Your task to perform on an android device: add a contact Image 0: 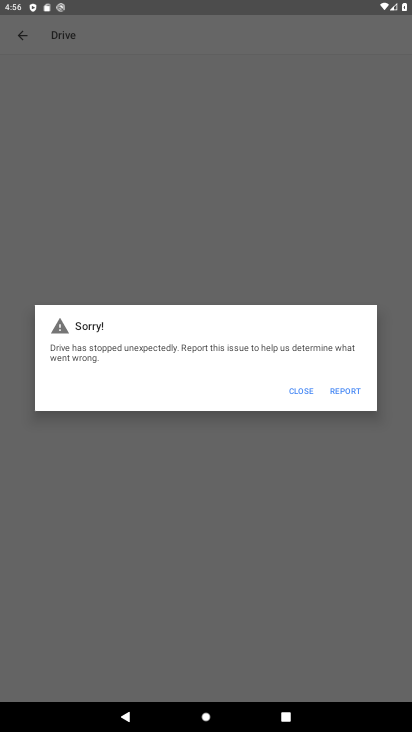
Step 0: press home button
Your task to perform on an android device: add a contact Image 1: 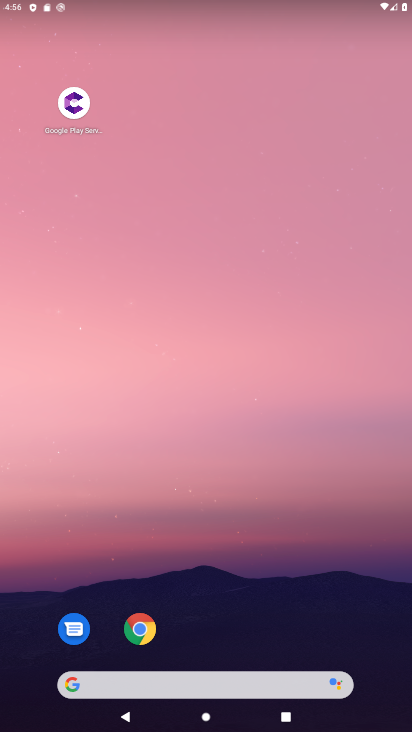
Step 1: click (302, 264)
Your task to perform on an android device: add a contact Image 2: 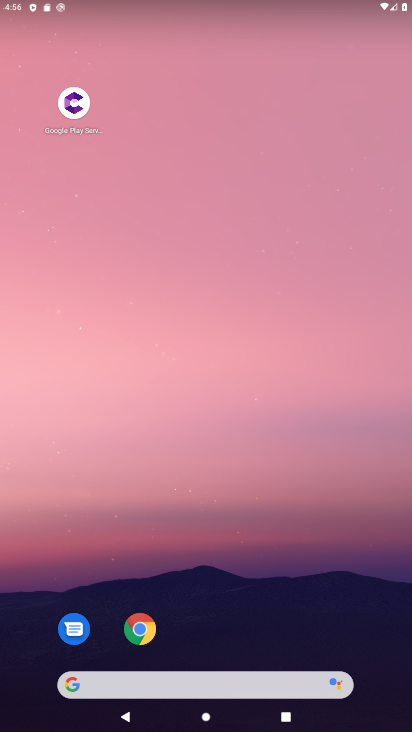
Step 2: drag from (216, 553) to (205, 8)
Your task to perform on an android device: add a contact Image 3: 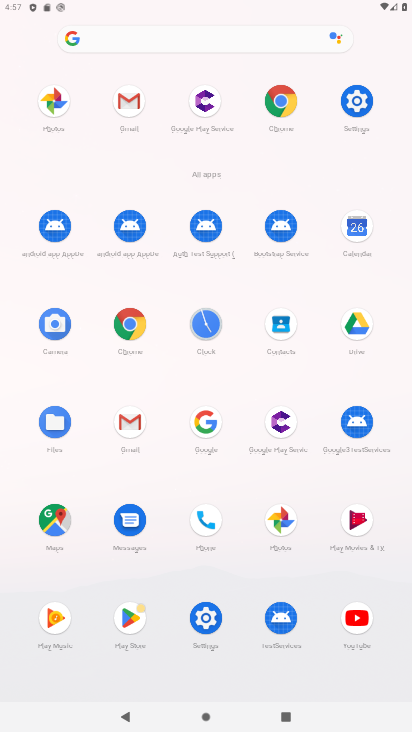
Step 3: click (273, 324)
Your task to perform on an android device: add a contact Image 4: 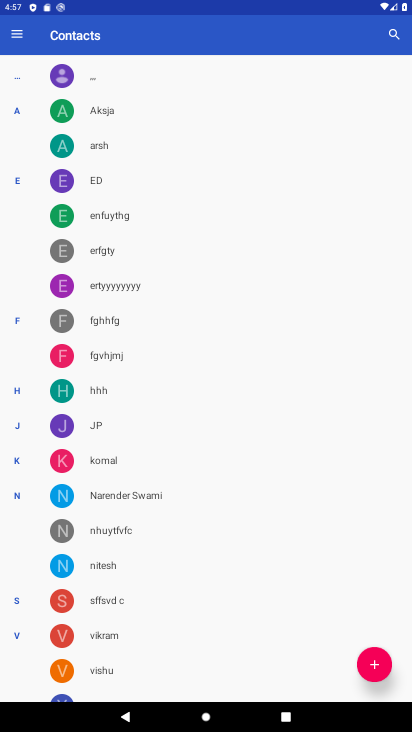
Step 4: click (363, 657)
Your task to perform on an android device: add a contact Image 5: 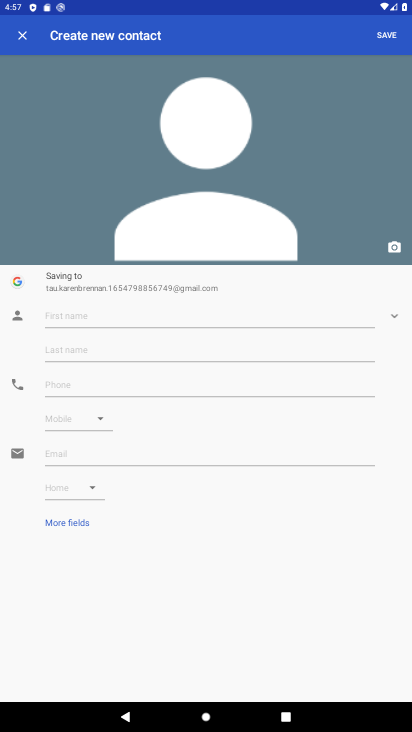
Step 5: click (189, 301)
Your task to perform on an android device: add a contact Image 6: 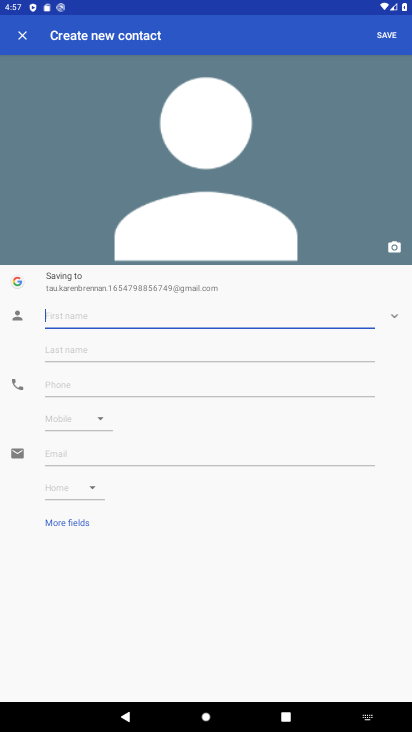
Step 6: type "ram"
Your task to perform on an android device: add a contact Image 7: 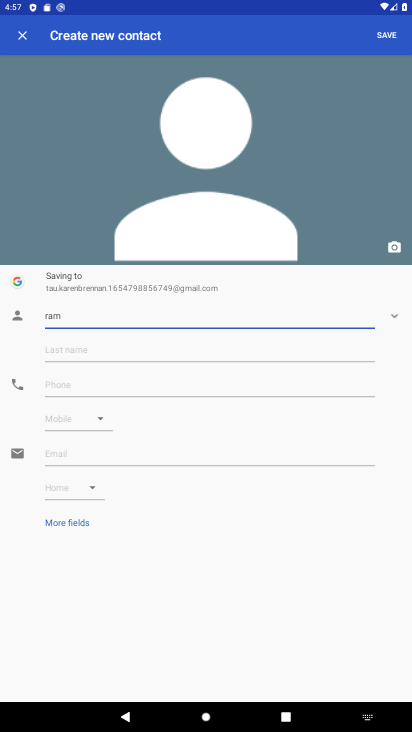
Step 7: click (290, 345)
Your task to perform on an android device: add a contact Image 8: 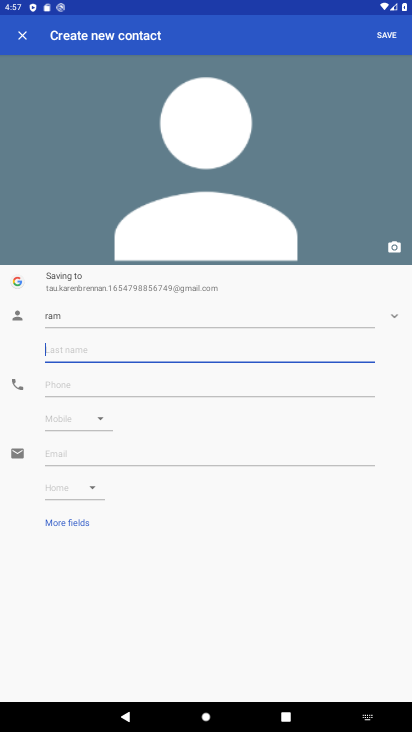
Step 8: click (290, 345)
Your task to perform on an android device: add a contact Image 9: 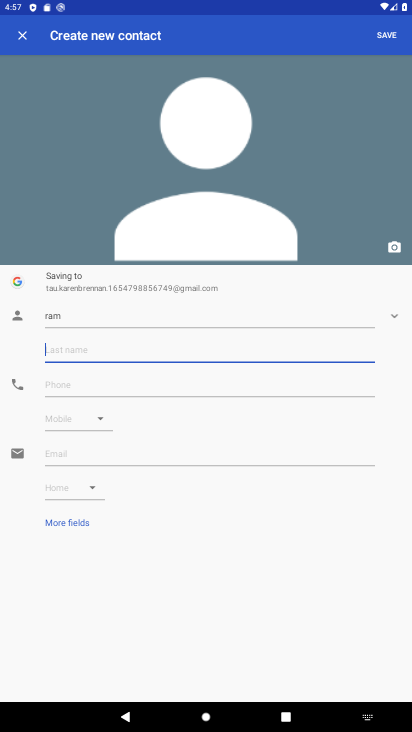
Step 9: type "singh"
Your task to perform on an android device: add a contact Image 10: 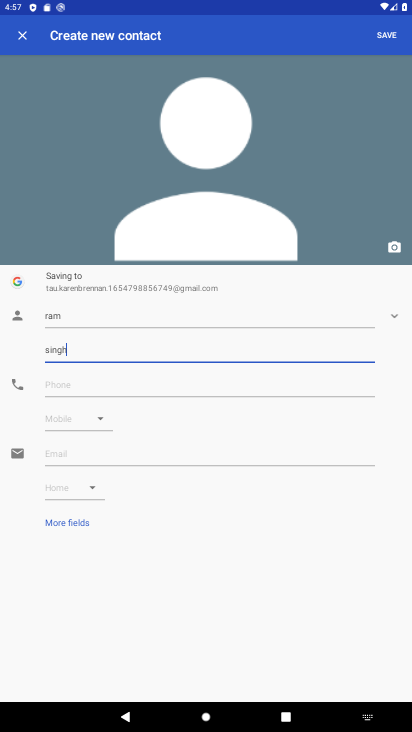
Step 10: click (76, 374)
Your task to perform on an android device: add a contact Image 11: 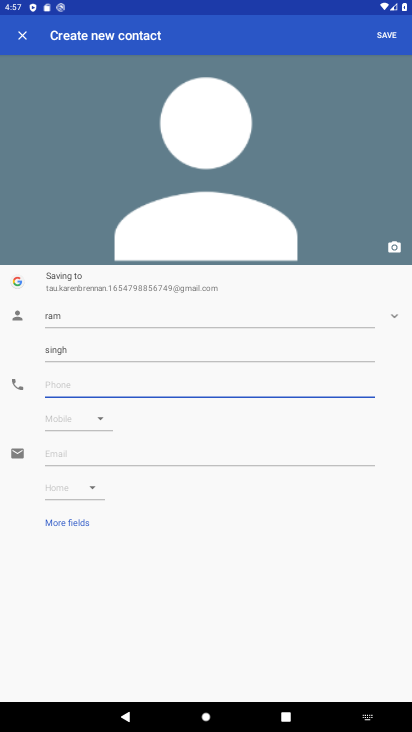
Step 11: click (76, 374)
Your task to perform on an android device: add a contact Image 12: 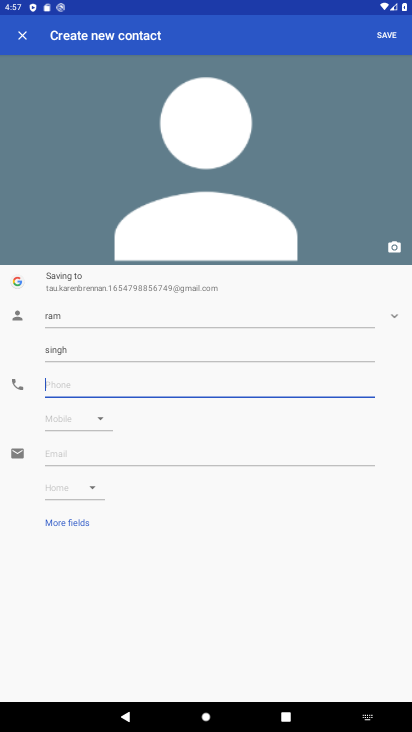
Step 12: click (76, 374)
Your task to perform on an android device: add a contact Image 13: 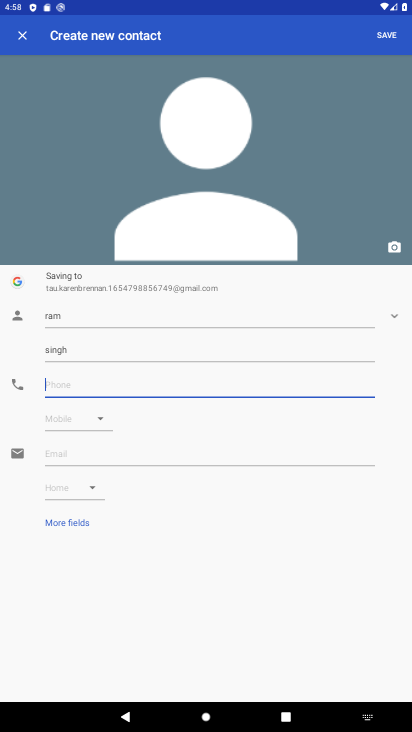
Step 13: type "9854278347"
Your task to perform on an android device: add a contact Image 14: 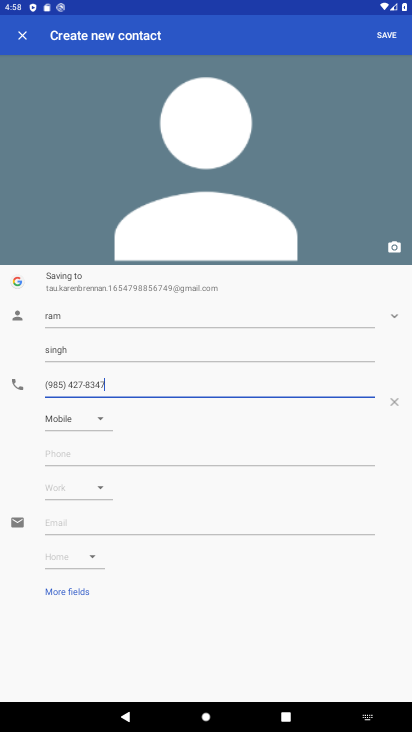
Step 14: click (389, 41)
Your task to perform on an android device: add a contact Image 15: 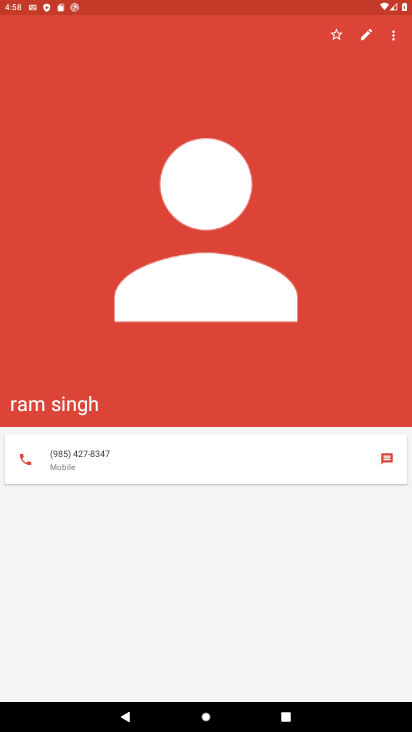
Step 15: task complete